Your task to perform on an android device: Open Maps and search for coffee Image 0: 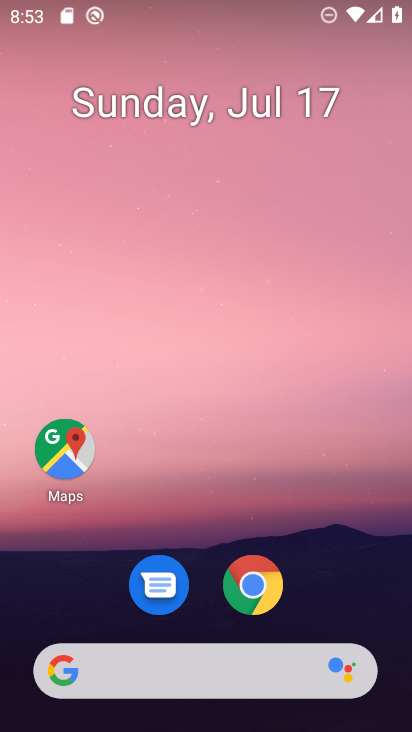
Step 0: click (73, 443)
Your task to perform on an android device: Open Maps and search for coffee Image 1: 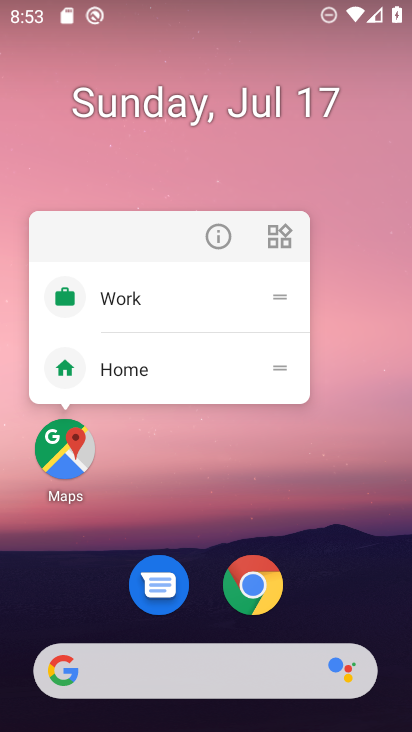
Step 1: click (64, 463)
Your task to perform on an android device: Open Maps and search for coffee Image 2: 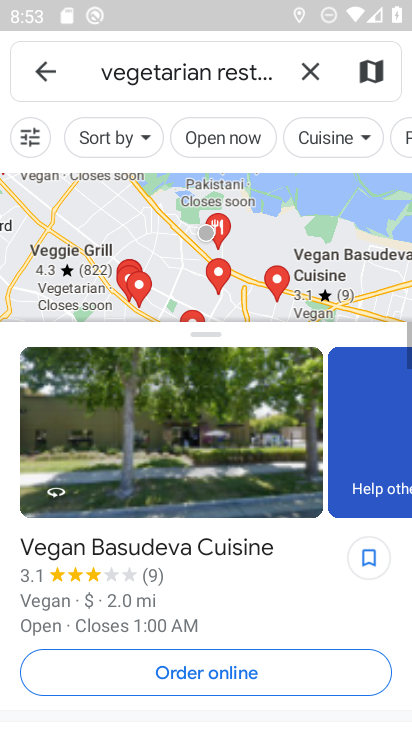
Step 2: click (310, 68)
Your task to perform on an android device: Open Maps and search for coffee Image 3: 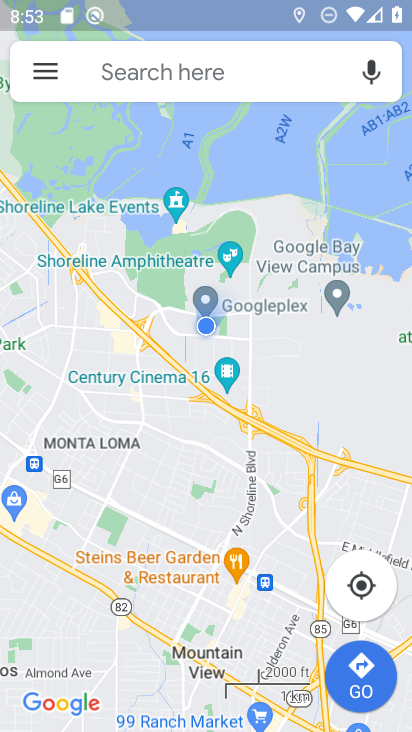
Step 3: click (149, 67)
Your task to perform on an android device: Open Maps and search for coffee Image 4: 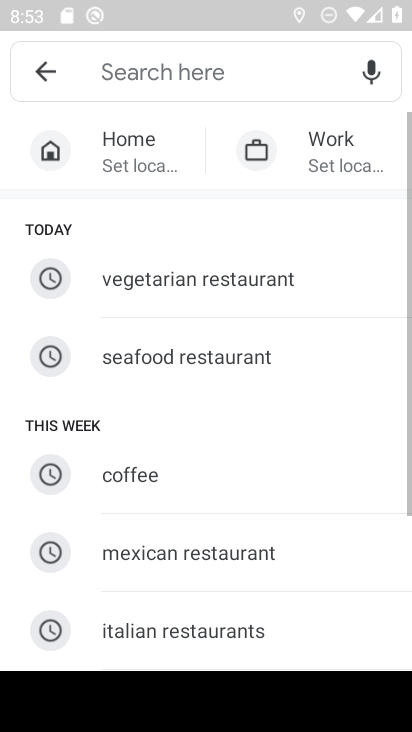
Step 4: click (148, 480)
Your task to perform on an android device: Open Maps and search for coffee Image 5: 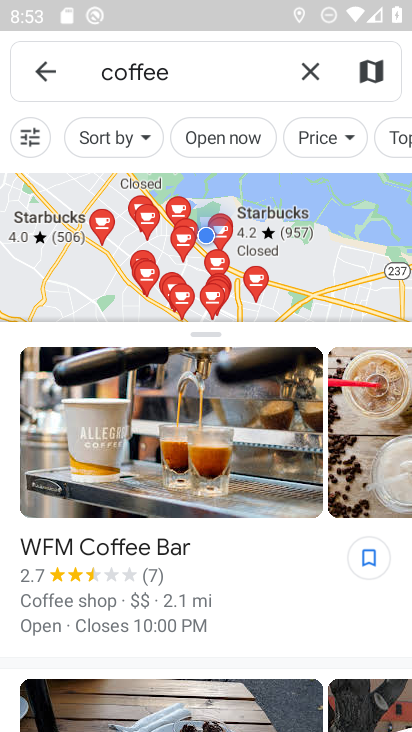
Step 5: task complete